Your task to perform on an android device: change notifications settings Image 0: 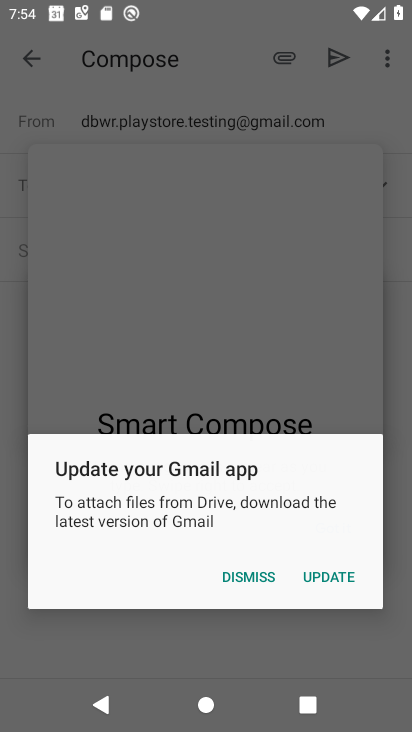
Step 0: press home button
Your task to perform on an android device: change notifications settings Image 1: 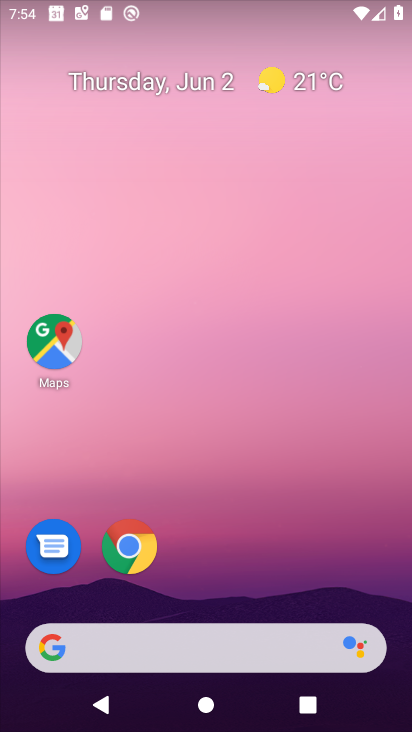
Step 1: drag from (374, 551) to (343, 124)
Your task to perform on an android device: change notifications settings Image 2: 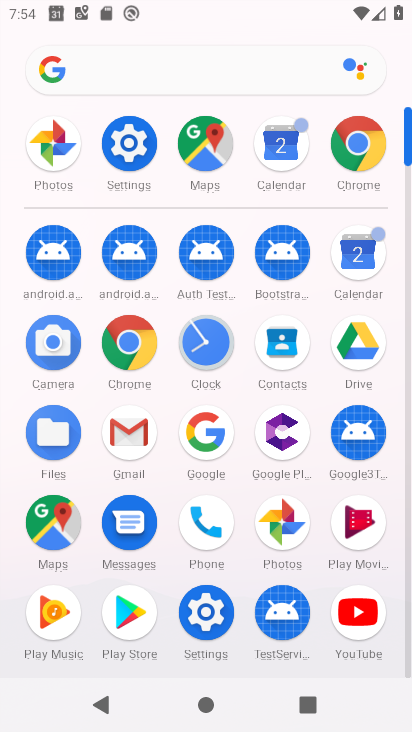
Step 2: click (196, 623)
Your task to perform on an android device: change notifications settings Image 3: 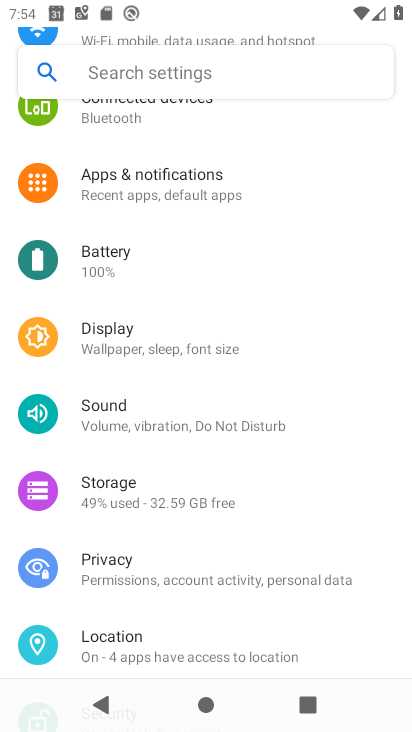
Step 3: click (232, 187)
Your task to perform on an android device: change notifications settings Image 4: 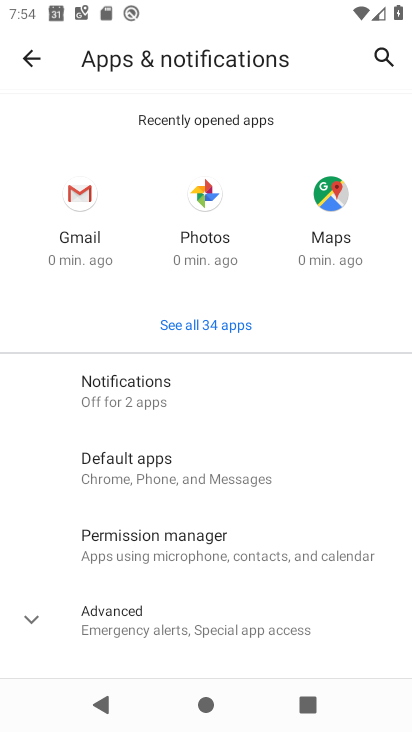
Step 4: click (152, 405)
Your task to perform on an android device: change notifications settings Image 5: 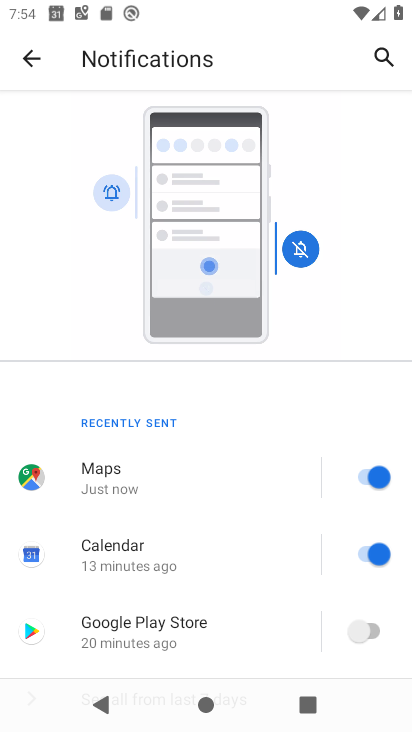
Step 5: task complete